Your task to perform on an android device: Open privacy settings Image 0: 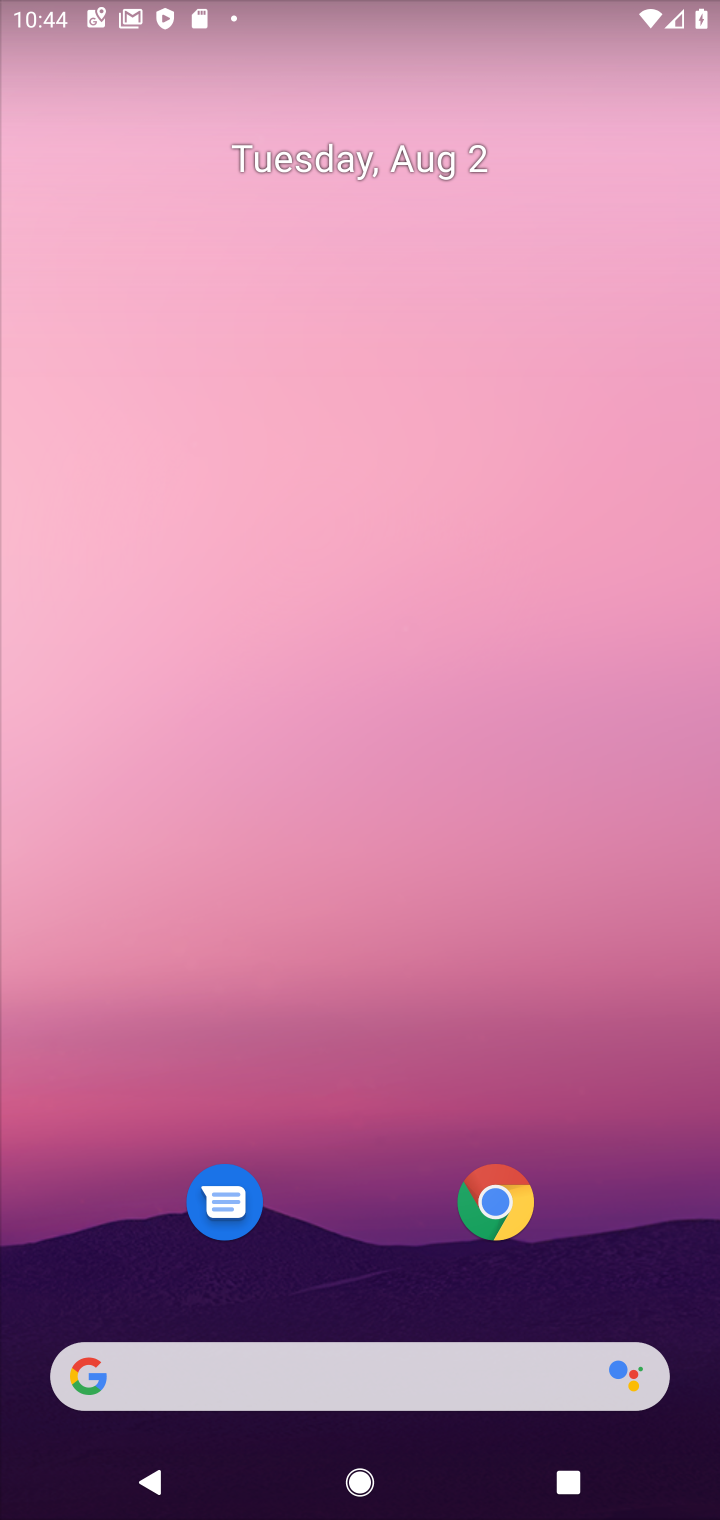
Step 0: drag from (672, 1292) to (486, 118)
Your task to perform on an android device: Open privacy settings Image 1: 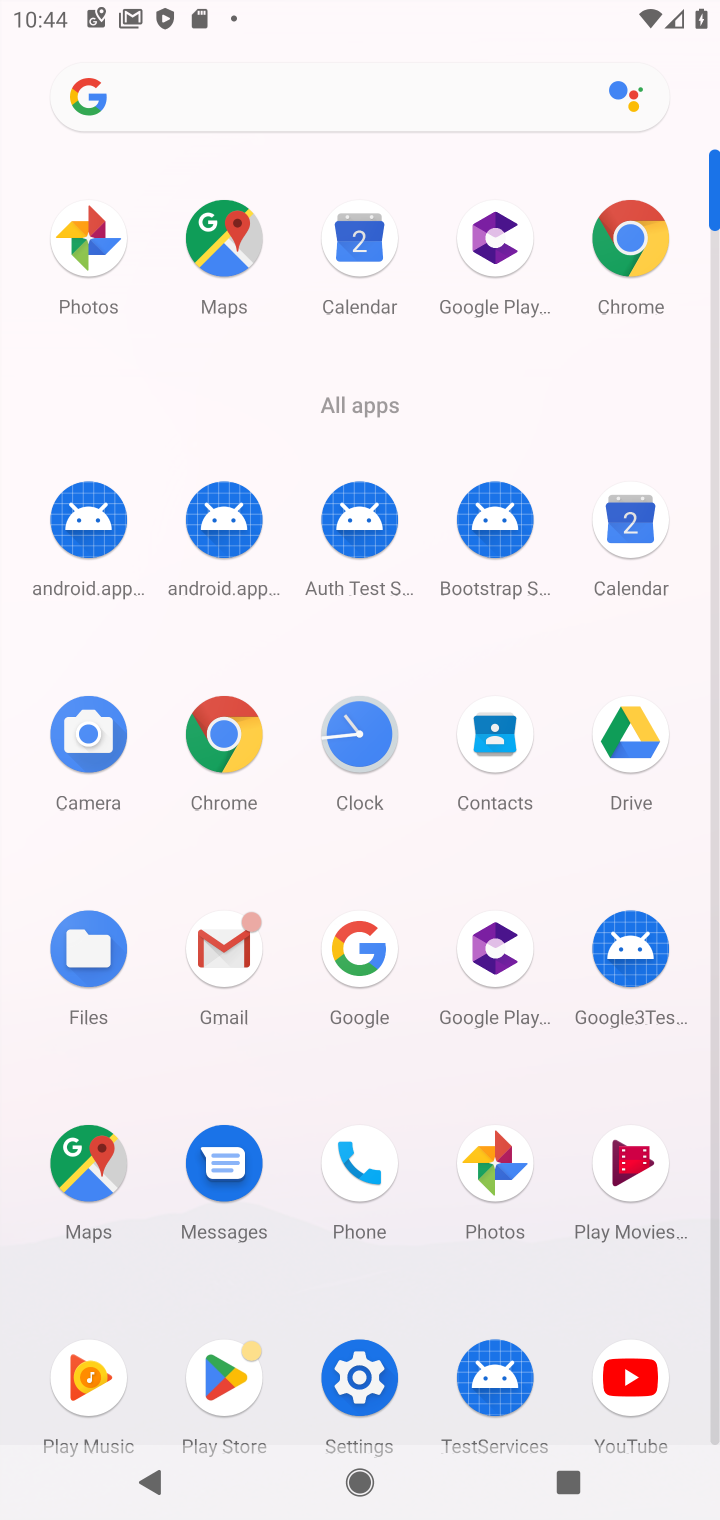
Step 1: click (357, 1364)
Your task to perform on an android device: Open privacy settings Image 2: 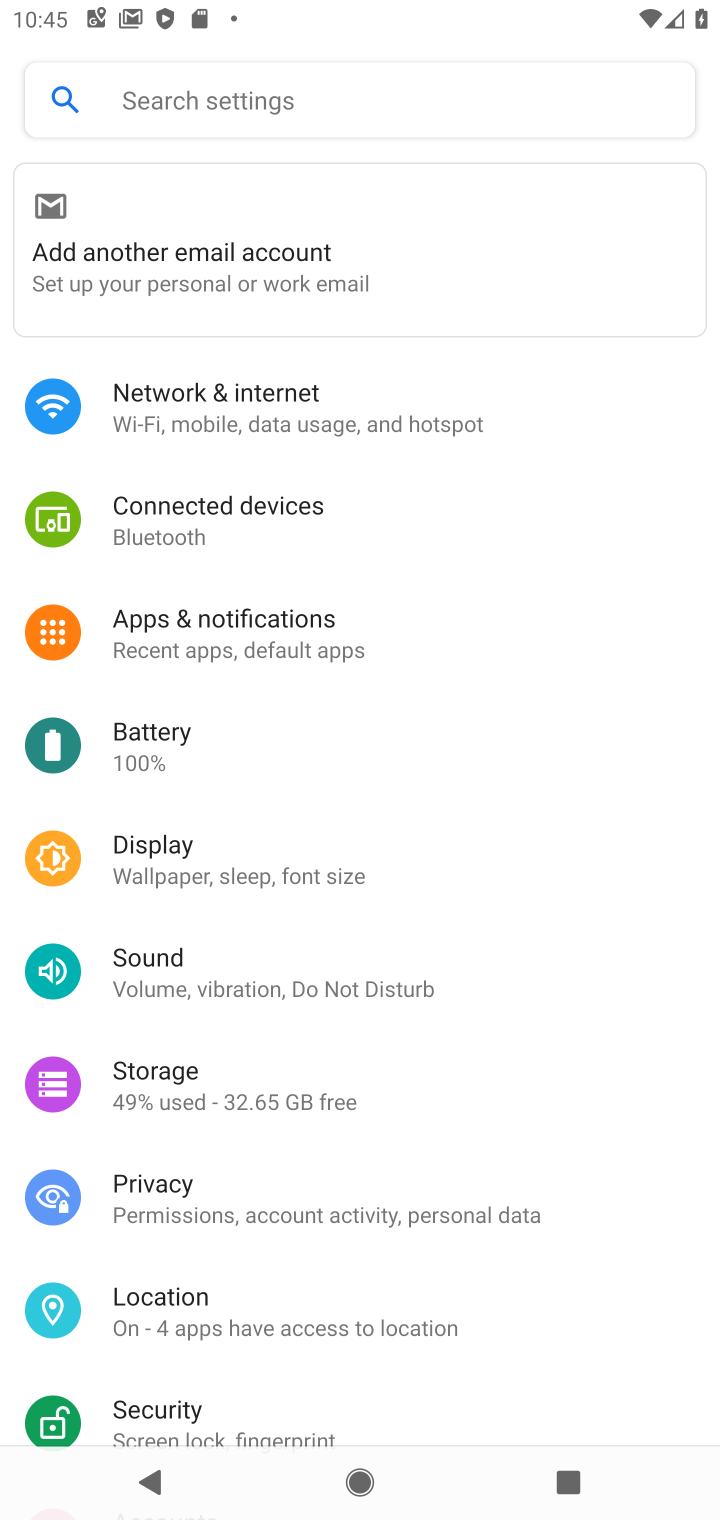
Step 2: drag from (464, 1322) to (411, 913)
Your task to perform on an android device: Open privacy settings Image 3: 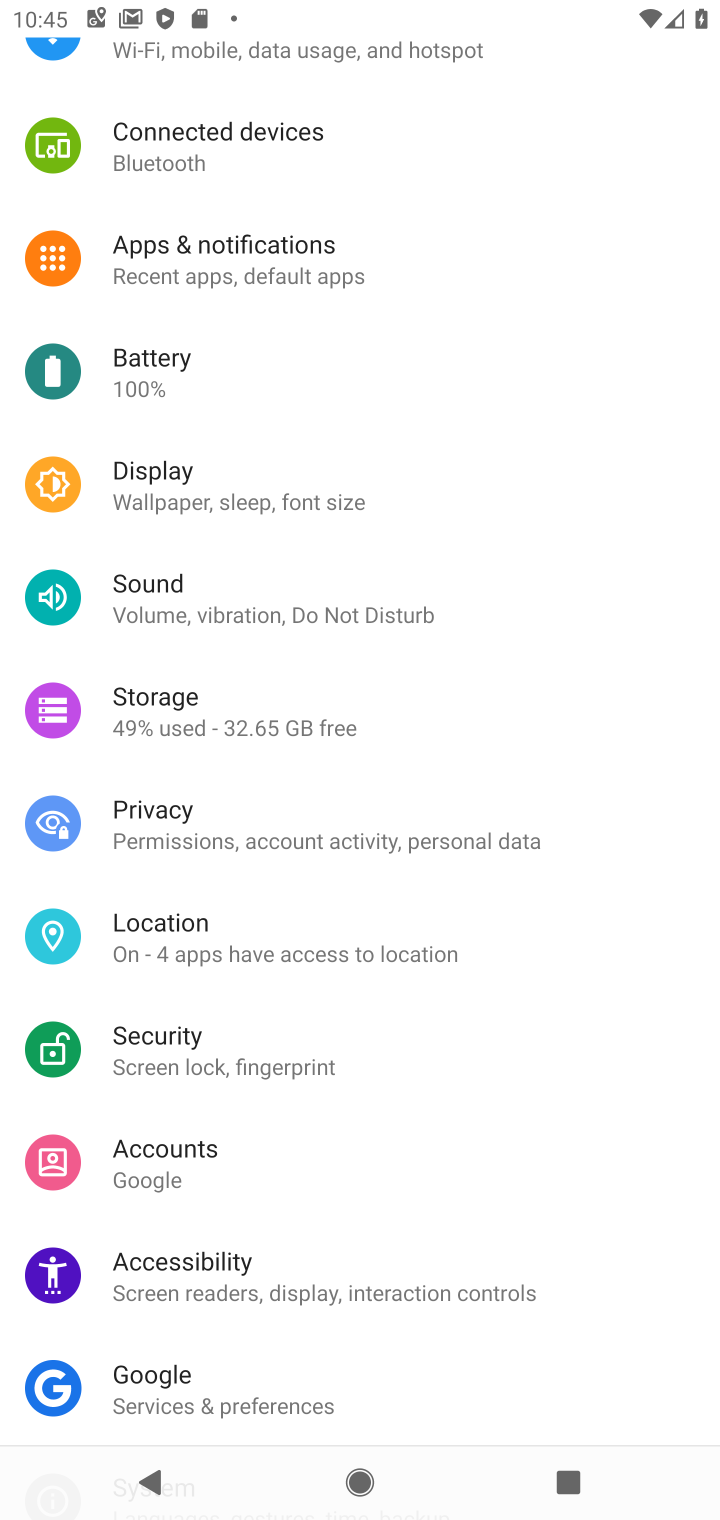
Step 3: click (371, 858)
Your task to perform on an android device: Open privacy settings Image 4: 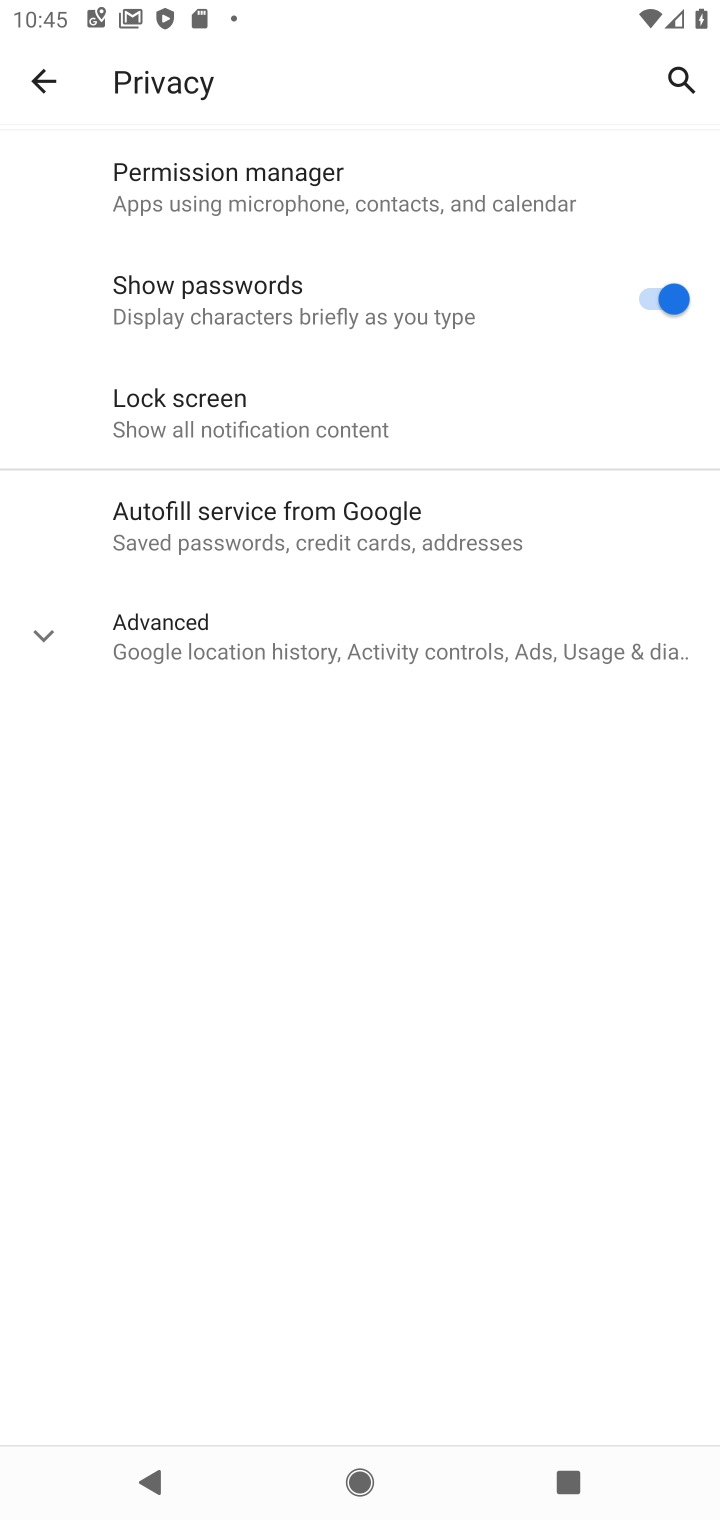
Step 4: task complete